Your task to perform on an android device: turn off location Image 0: 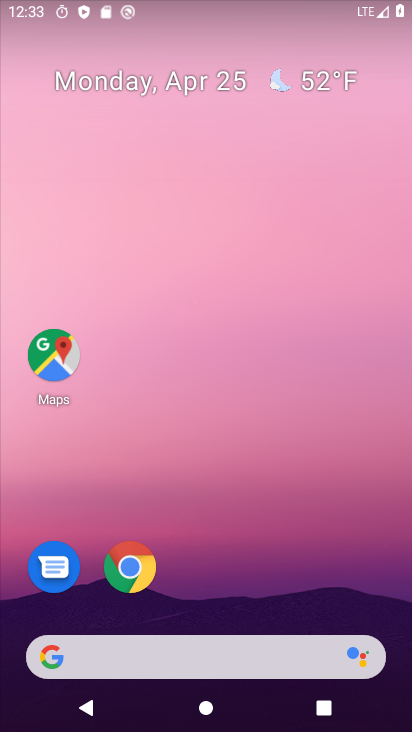
Step 0: drag from (272, 580) to (210, 2)
Your task to perform on an android device: turn off location Image 1: 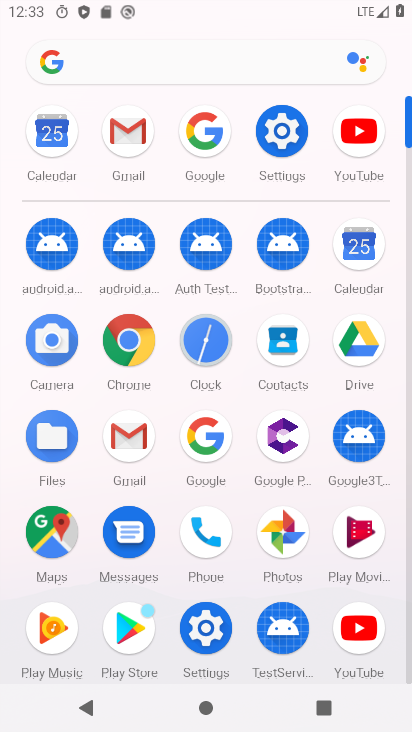
Step 1: click (283, 135)
Your task to perform on an android device: turn off location Image 2: 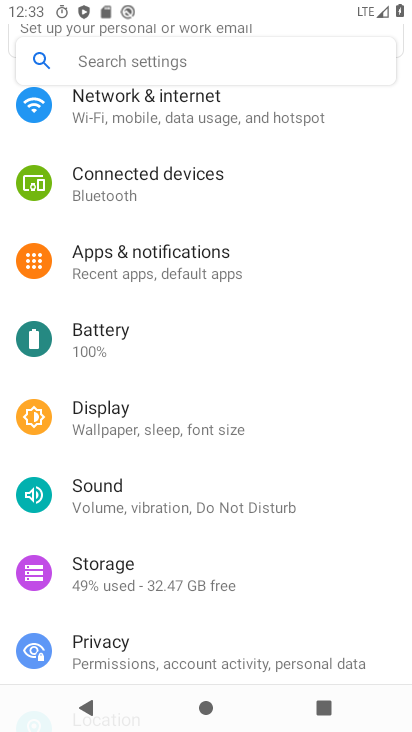
Step 2: drag from (267, 561) to (335, 202)
Your task to perform on an android device: turn off location Image 3: 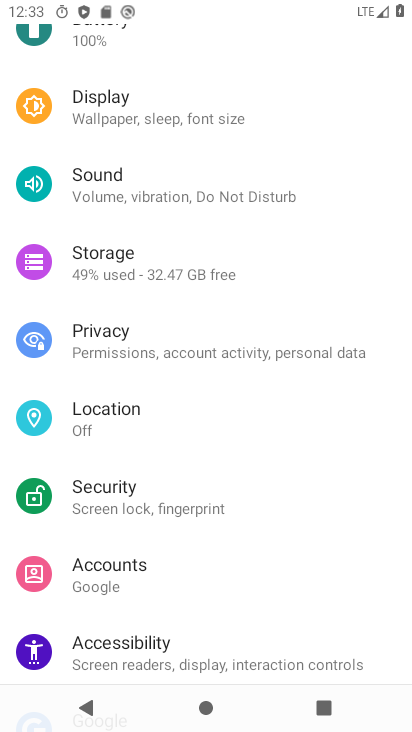
Step 3: click (189, 406)
Your task to perform on an android device: turn off location Image 4: 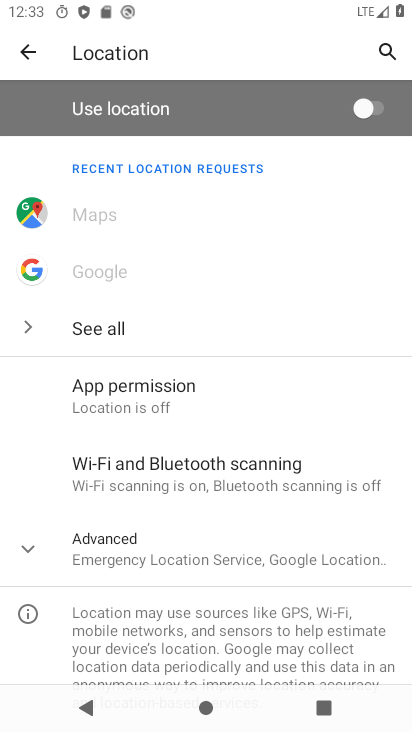
Step 4: task complete